Your task to perform on an android device: Open settings Image 0: 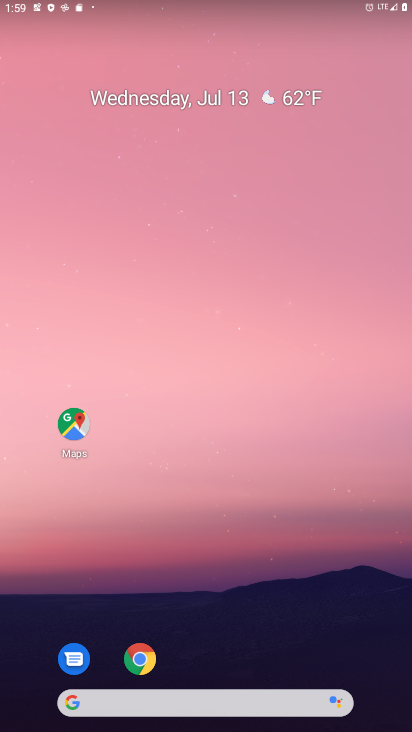
Step 0: drag from (221, 663) to (221, 140)
Your task to perform on an android device: Open settings Image 1: 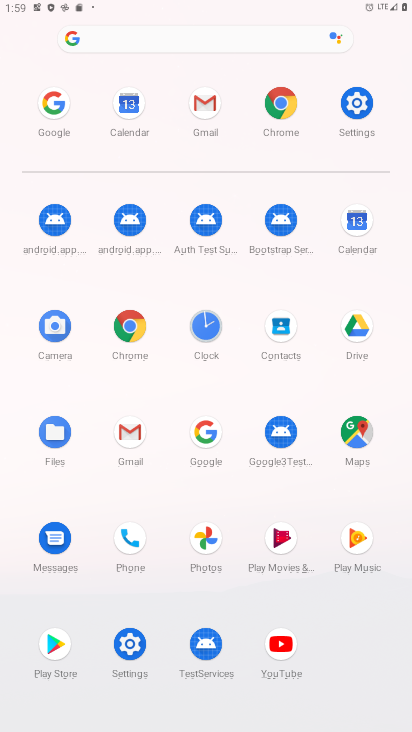
Step 1: click (363, 104)
Your task to perform on an android device: Open settings Image 2: 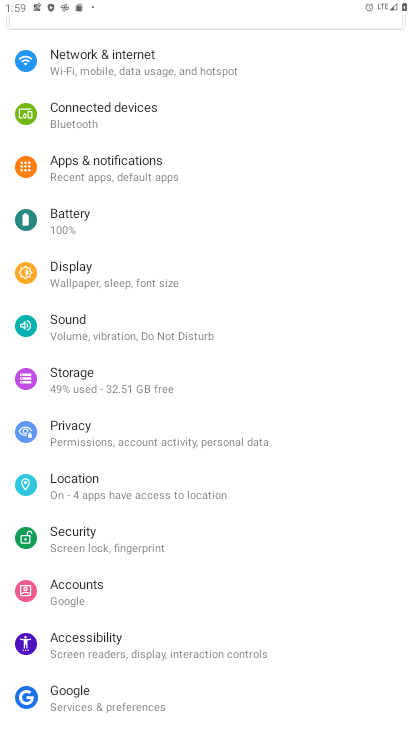
Step 2: task complete